Your task to perform on an android device: Go to display settings Image 0: 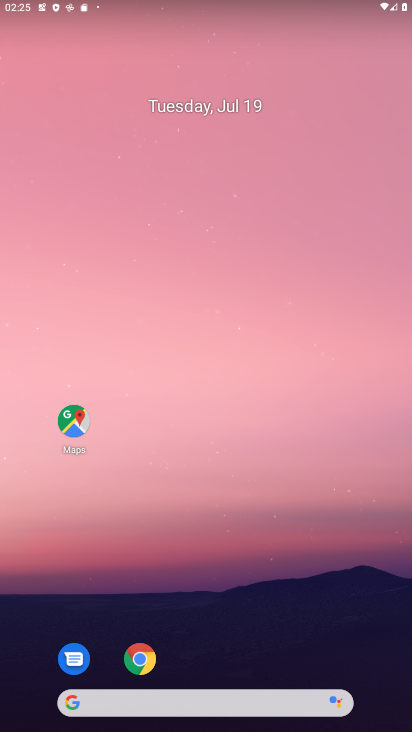
Step 0: drag from (199, 659) to (261, 127)
Your task to perform on an android device: Go to display settings Image 1: 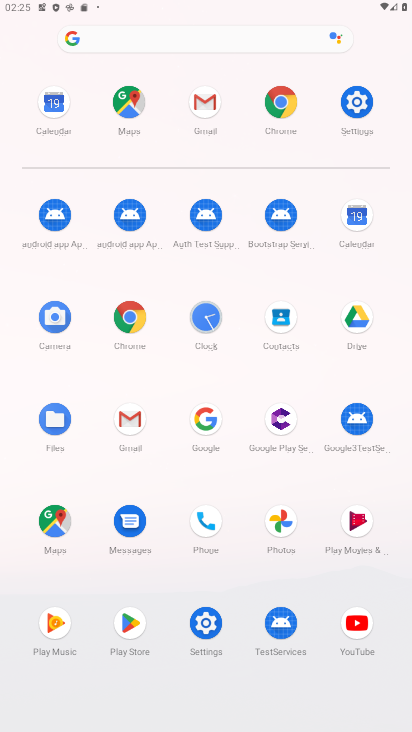
Step 1: click (208, 611)
Your task to perform on an android device: Go to display settings Image 2: 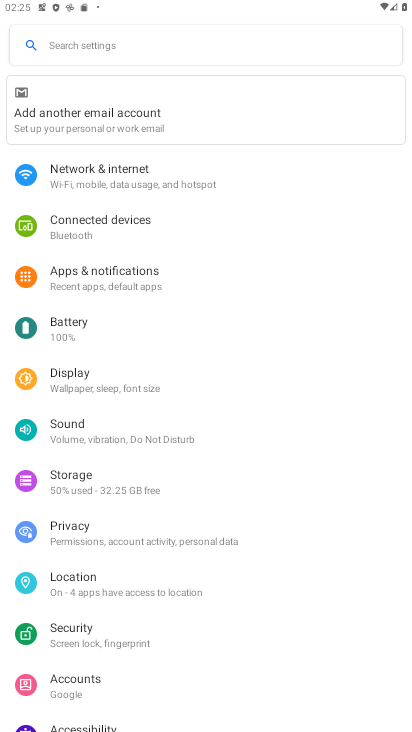
Step 2: click (93, 390)
Your task to perform on an android device: Go to display settings Image 3: 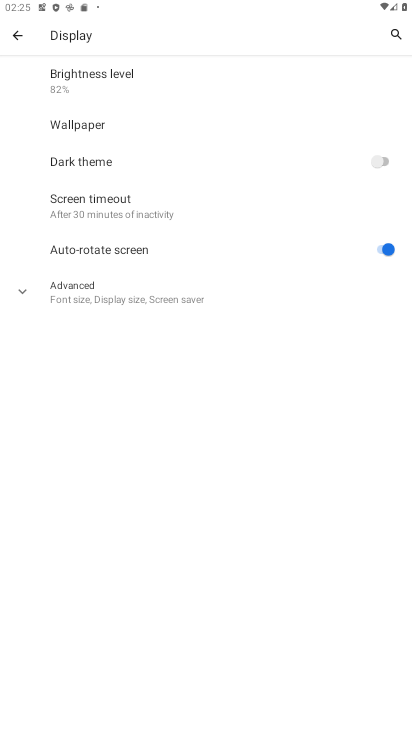
Step 3: task complete